Your task to perform on an android device: Open eBay Image 0: 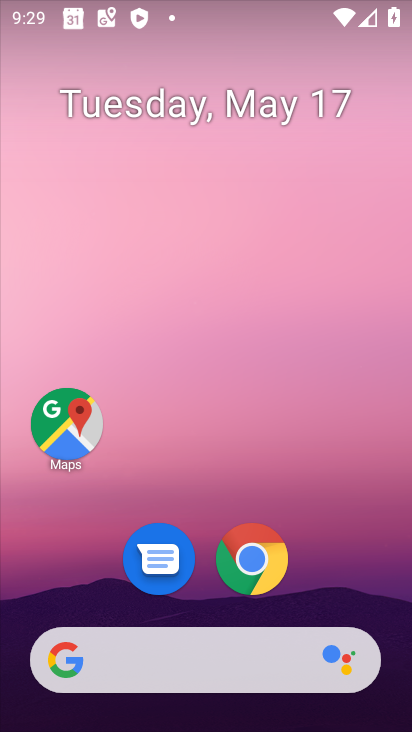
Step 0: click (157, 665)
Your task to perform on an android device: Open eBay Image 1: 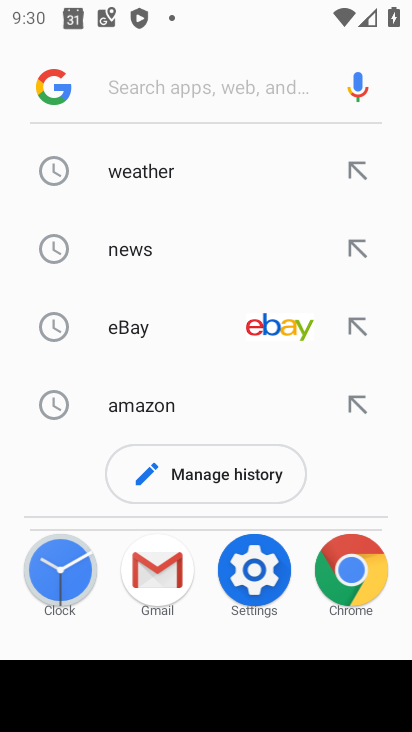
Step 1: click (288, 329)
Your task to perform on an android device: Open eBay Image 2: 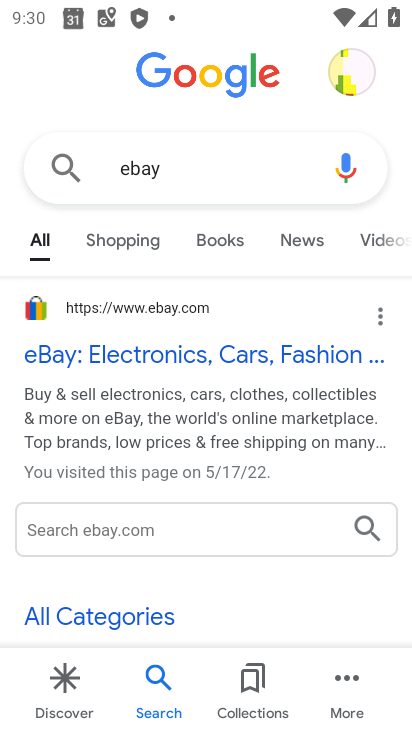
Step 2: click (132, 318)
Your task to perform on an android device: Open eBay Image 3: 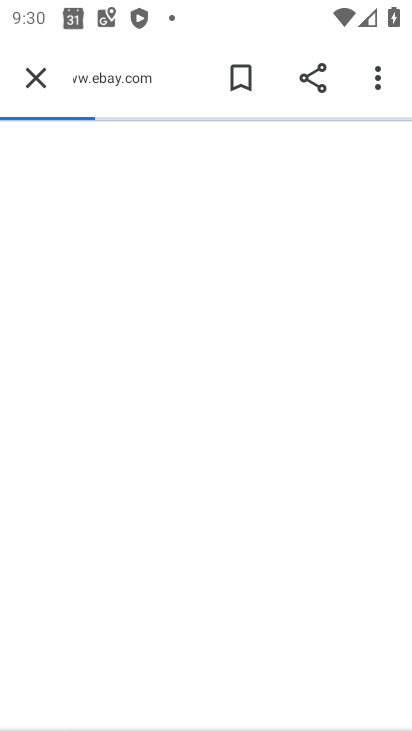
Step 3: task complete